Your task to perform on an android device: allow notifications from all sites in the chrome app Image 0: 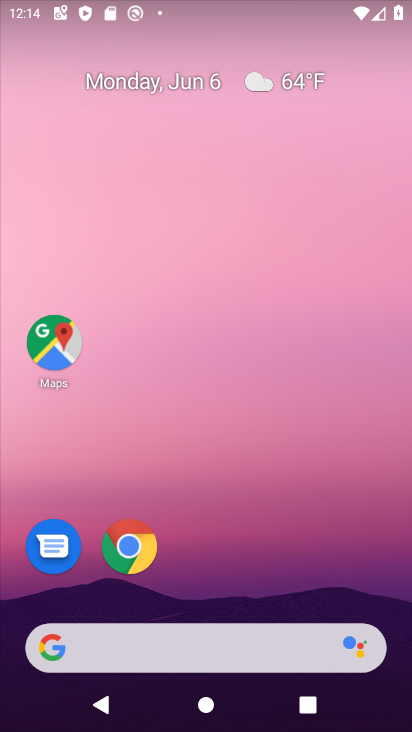
Step 0: drag from (246, 421) to (246, 223)
Your task to perform on an android device: allow notifications from all sites in the chrome app Image 1: 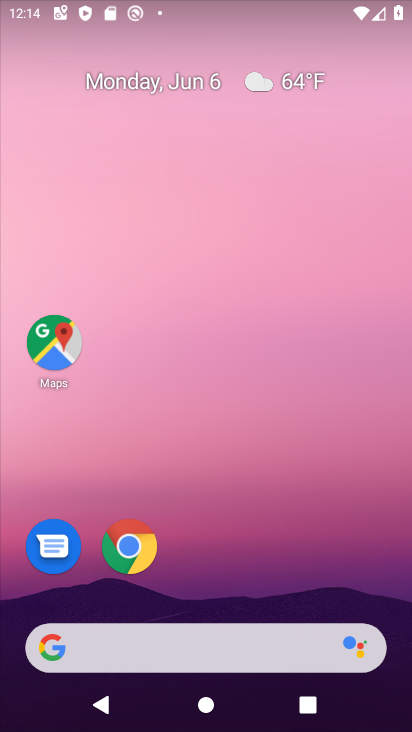
Step 1: drag from (198, 625) to (239, 226)
Your task to perform on an android device: allow notifications from all sites in the chrome app Image 2: 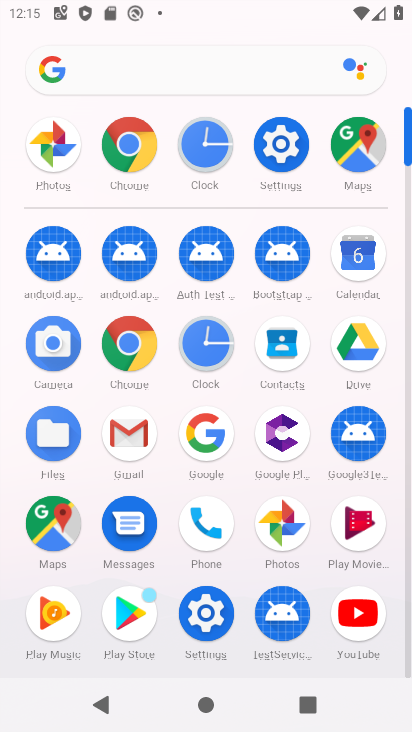
Step 2: click (124, 341)
Your task to perform on an android device: allow notifications from all sites in the chrome app Image 3: 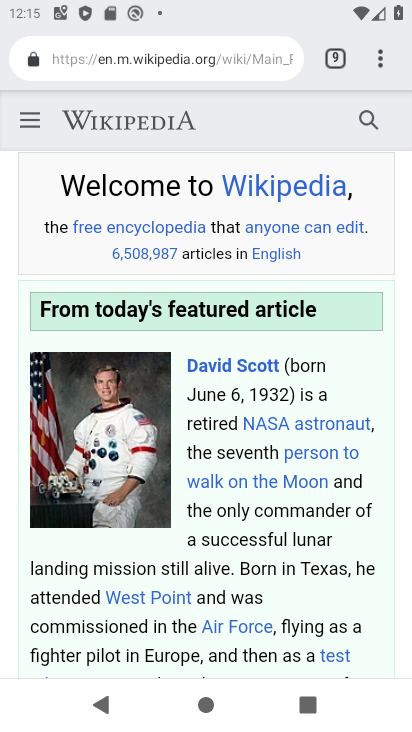
Step 3: click (378, 50)
Your task to perform on an android device: allow notifications from all sites in the chrome app Image 4: 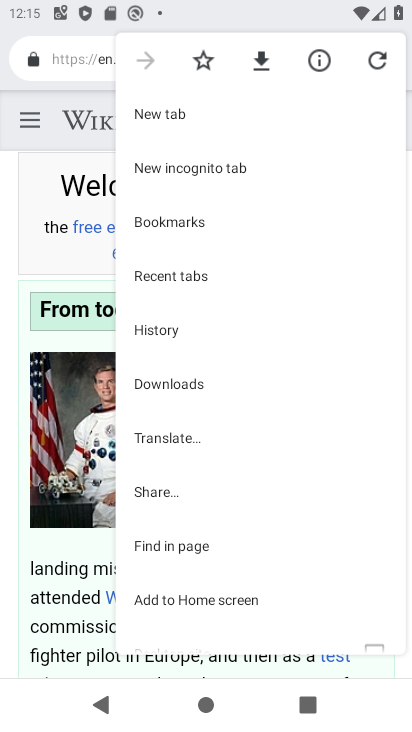
Step 4: drag from (240, 580) to (255, 303)
Your task to perform on an android device: allow notifications from all sites in the chrome app Image 5: 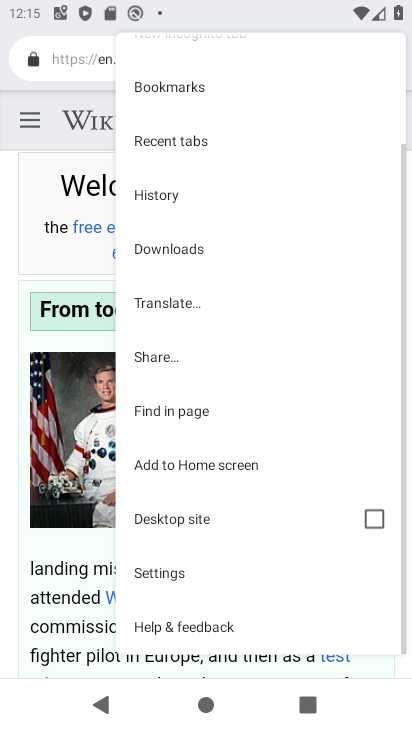
Step 5: click (151, 564)
Your task to perform on an android device: allow notifications from all sites in the chrome app Image 6: 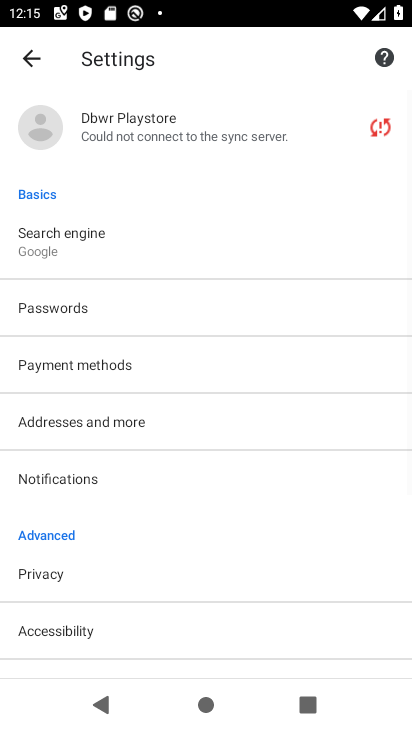
Step 6: drag from (196, 590) to (217, 395)
Your task to perform on an android device: allow notifications from all sites in the chrome app Image 7: 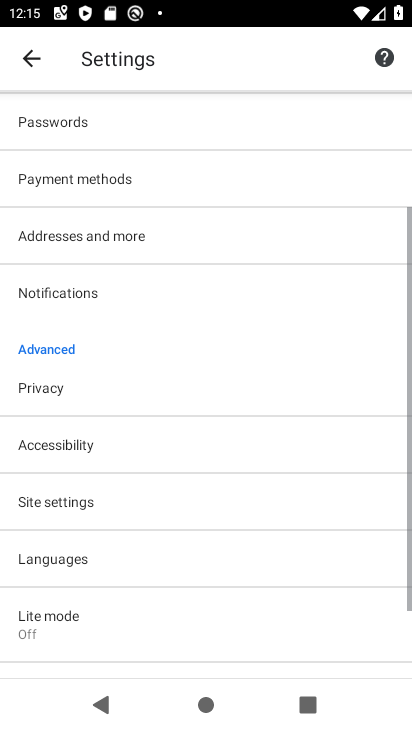
Step 7: drag from (76, 629) to (139, 403)
Your task to perform on an android device: allow notifications from all sites in the chrome app Image 8: 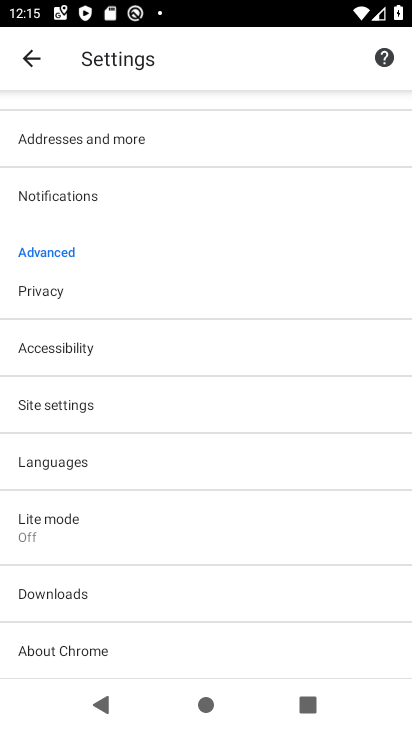
Step 8: click (81, 417)
Your task to perform on an android device: allow notifications from all sites in the chrome app Image 9: 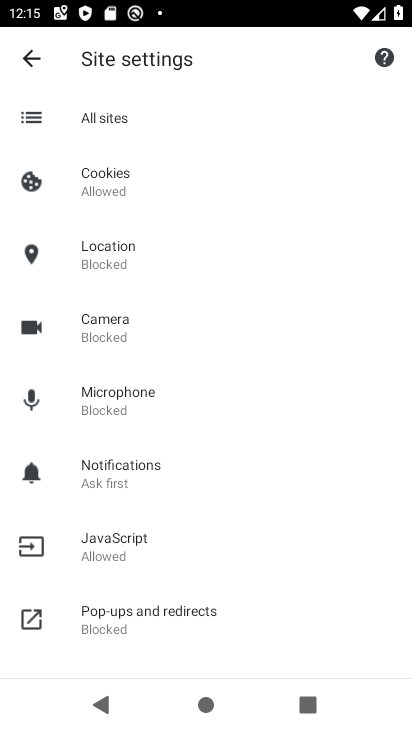
Step 9: click (138, 171)
Your task to perform on an android device: allow notifications from all sites in the chrome app Image 10: 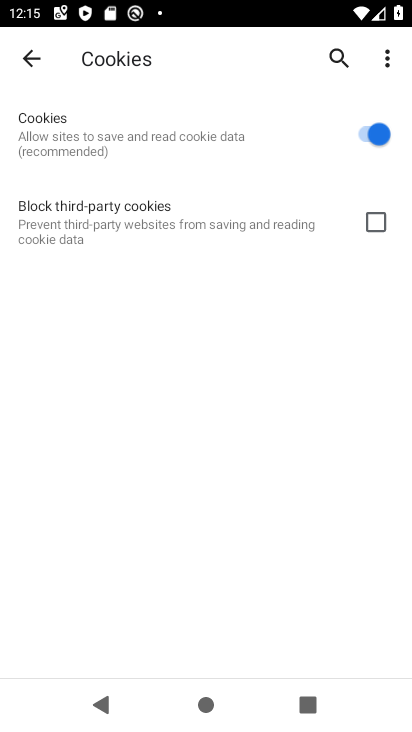
Step 10: click (28, 54)
Your task to perform on an android device: allow notifications from all sites in the chrome app Image 11: 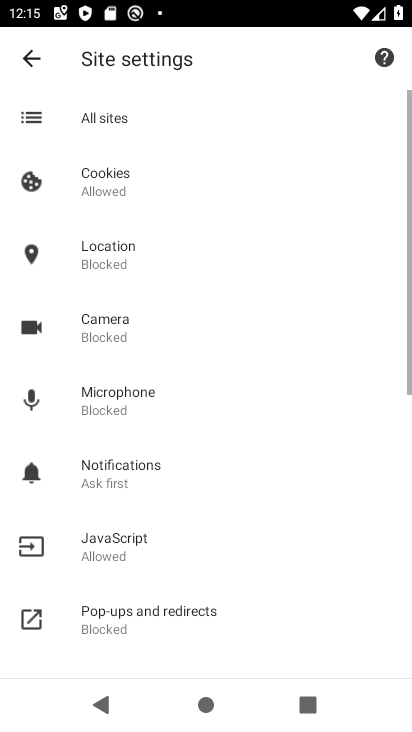
Step 11: click (107, 262)
Your task to perform on an android device: allow notifications from all sites in the chrome app Image 12: 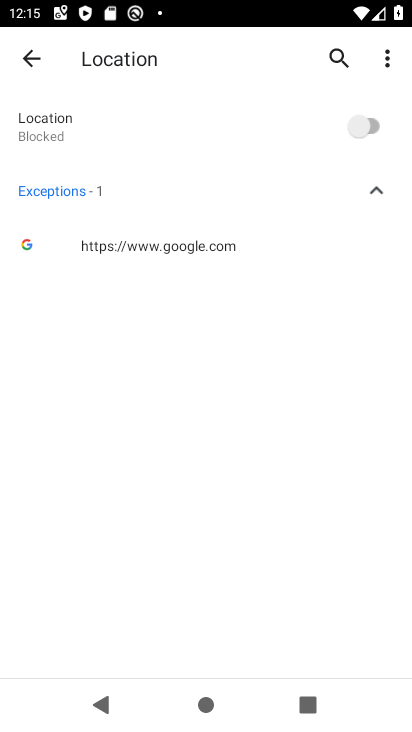
Step 12: click (27, 59)
Your task to perform on an android device: allow notifications from all sites in the chrome app Image 13: 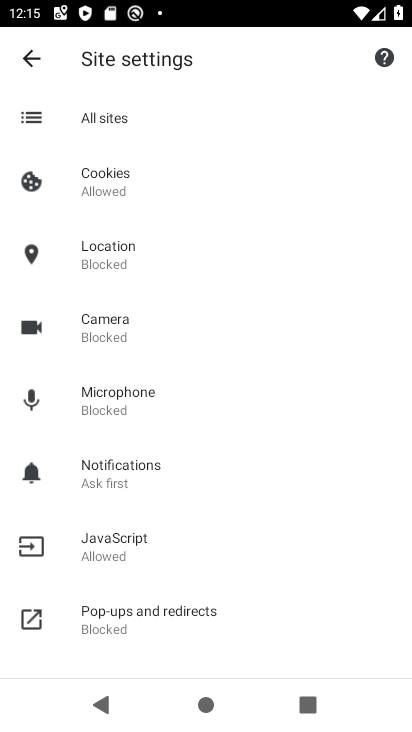
Step 13: click (151, 403)
Your task to perform on an android device: allow notifications from all sites in the chrome app Image 14: 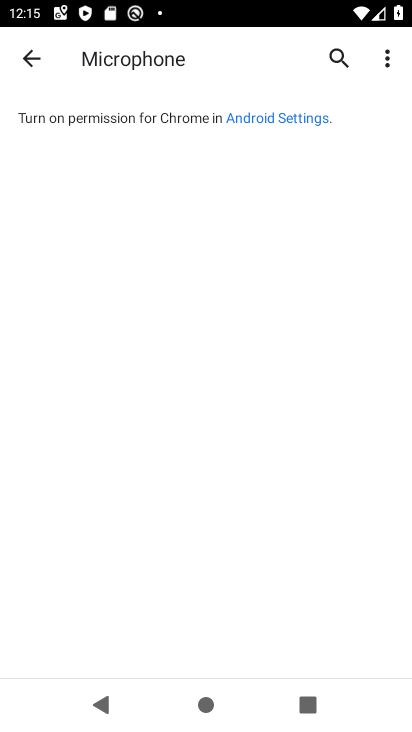
Step 14: click (47, 62)
Your task to perform on an android device: allow notifications from all sites in the chrome app Image 15: 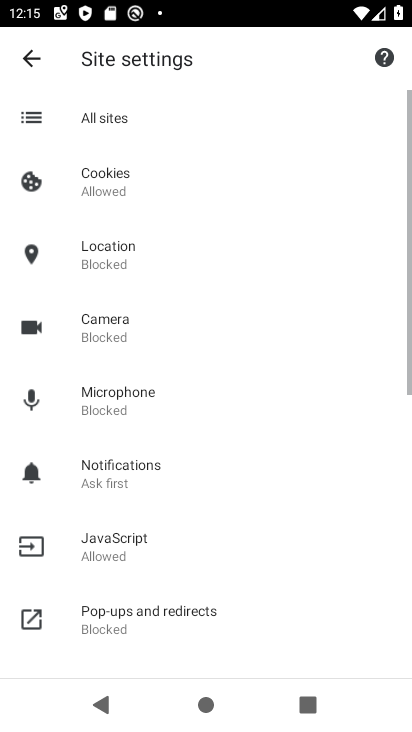
Step 15: click (132, 485)
Your task to perform on an android device: allow notifications from all sites in the chrome app Image 16: 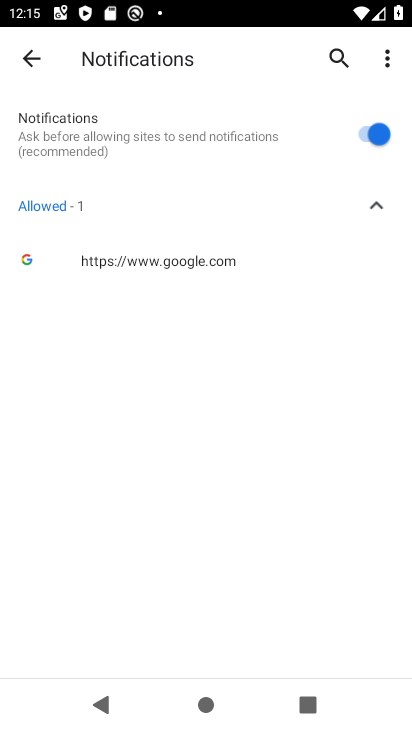
Step 16: click (24, 57)
Your task to perform on an android device: allow notifications from all sites in the chrome app Image 17: 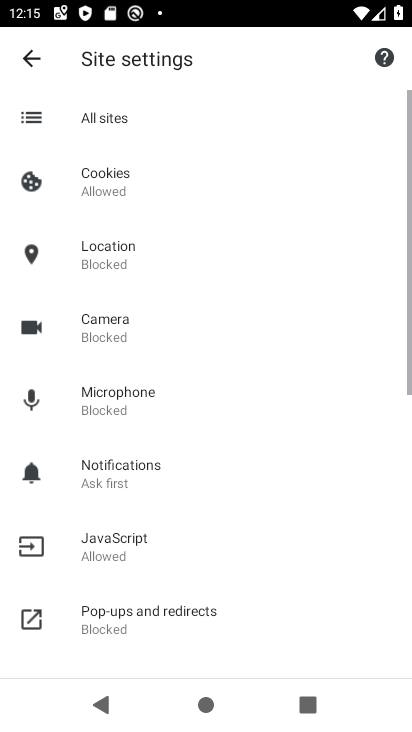
Step 17: click (120, 542)
Your task to perform on an android device: allow notifications from all sites in the chrome app Image 18: 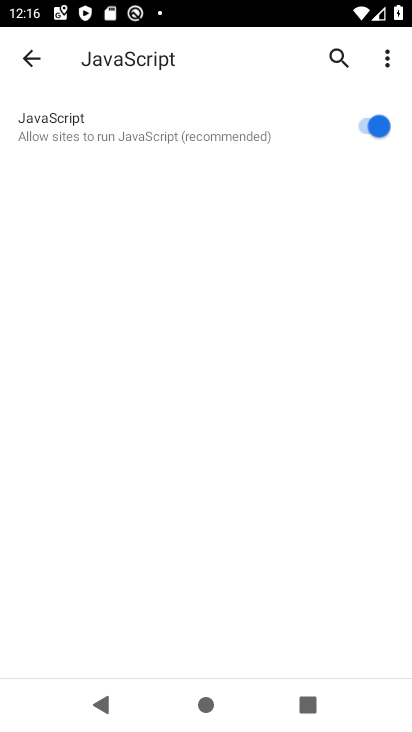
Step 18: task complete